Your task to perform on an android device: Open Google Maps and go to "Timeline" Image 0: 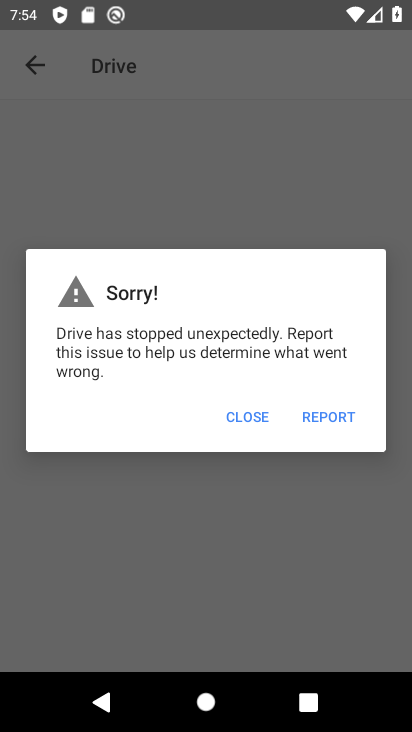
Step 0: press home button
Your task to perform on an android device: Open Google Maps and go to "Timeline" Image 1: 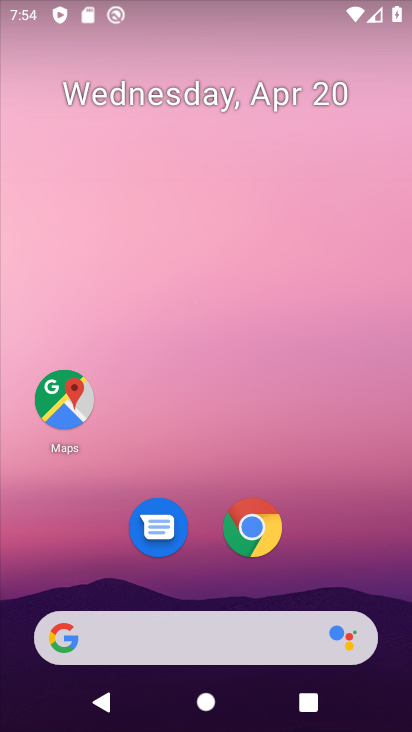
Step 1: click (109, 407)
Your task to perform on an android device: Open Google Maps and go to "Timeline" Image 2: 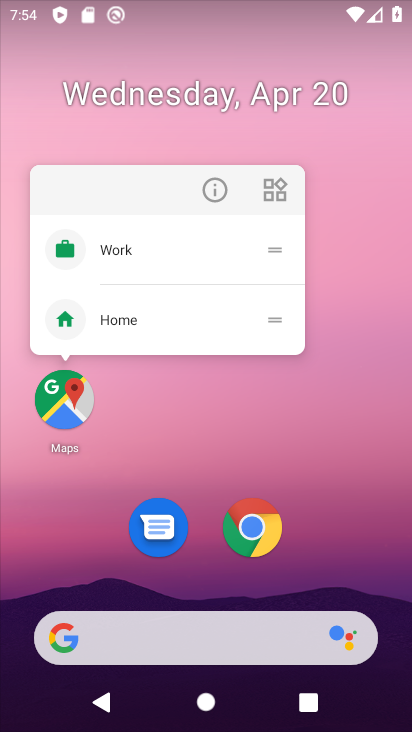
Step 2: click (65, 410)
Your task to perform on an android device: Open Google Maps and go to "Timeline" Image 3: 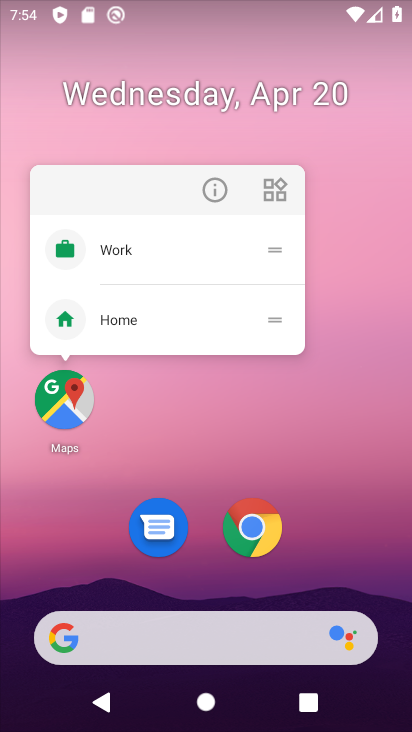
Step 3: click (65, 410)
Your task to perform on an android device: Open Google Maps and go to "Timeline" Image 4: 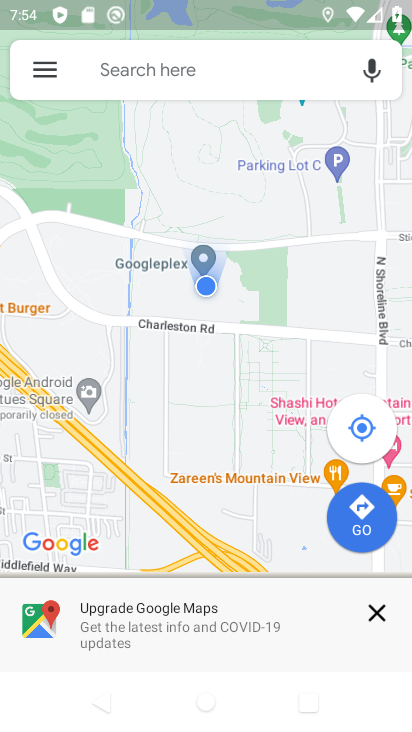
Step 4: click (43, 64)
Your task to perform on an android device: Open Google Maps and go to "Timeline" Image 5: 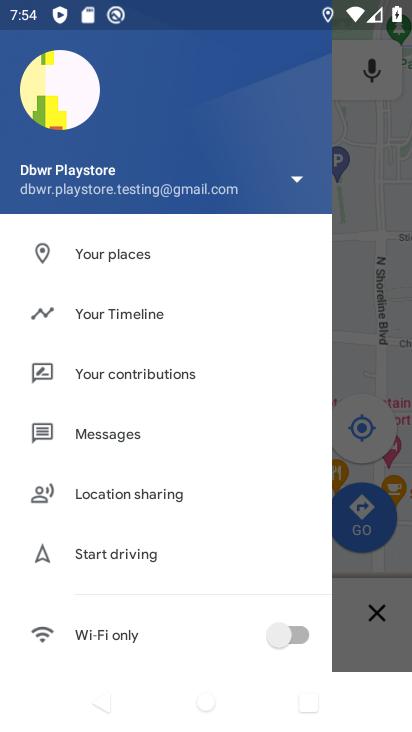
Step 5: click (134, 317)
Your task to perform on an android device: Open Google Maps and go to "Timeline" Image 6: 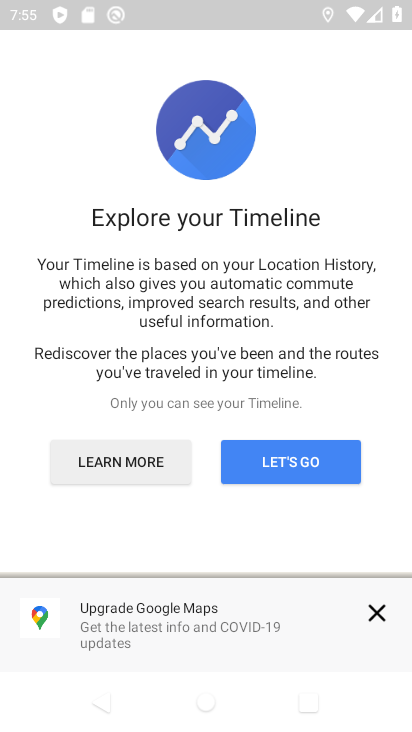
Step 6: click (297, 458)
Your task to perform on an android device: Open Google Maps and go to "Timeline" Image 7: 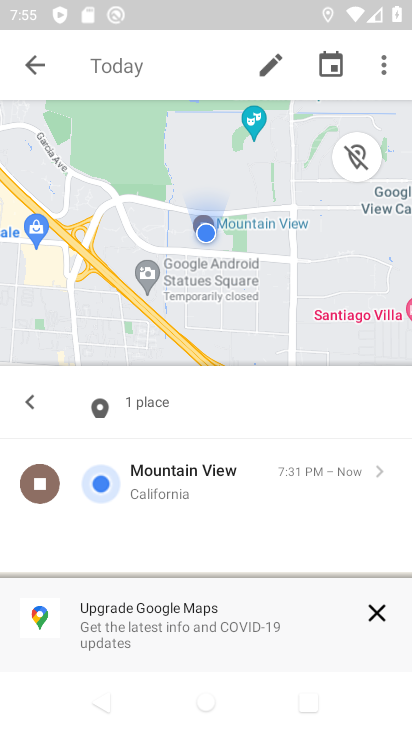
Step 7: task complete